Your task to perform on an android device: snooze an email in the gmail app Image 0: 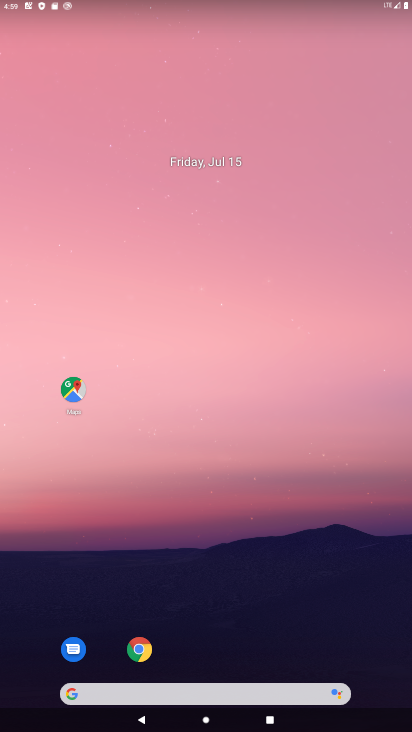
Step 0: drag from (319, 549) to (225, 71)
Your task to perform on an android device: snooze an email in the gmail app Image 1: 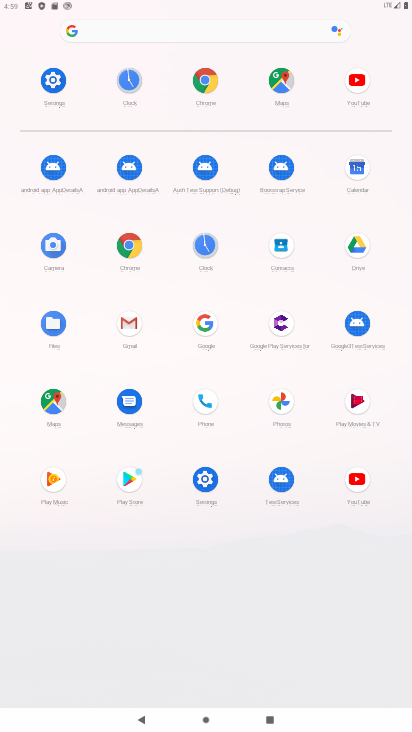
Step 1: click (123, 317)
Your task to perform on an android device: snooze an email in the gmail app Image 2: 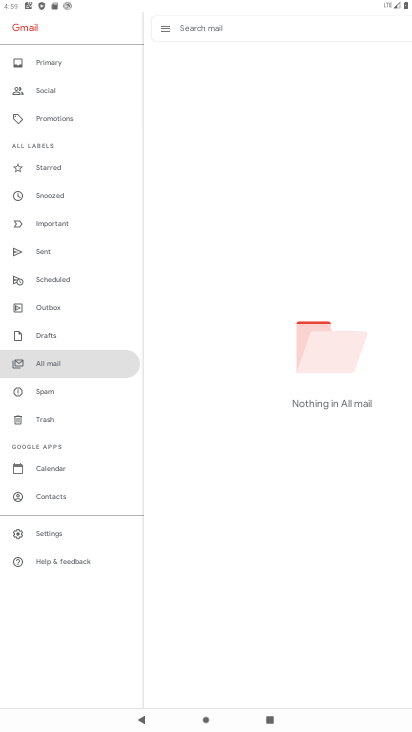
Step 2: task complete